Your task to perform on an android device: turn on notifications settings in the gmail app Image 0: 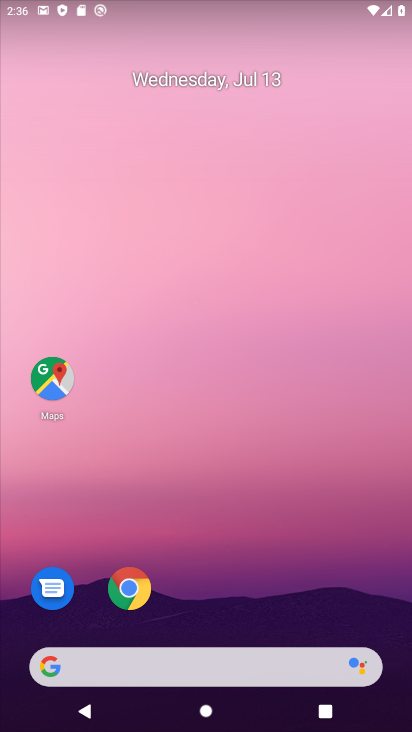
Step 0: drag from (352, 708) to (187, 157)
Your task to perform on an android device: turn on notifications settings in the gmail app Image 1: 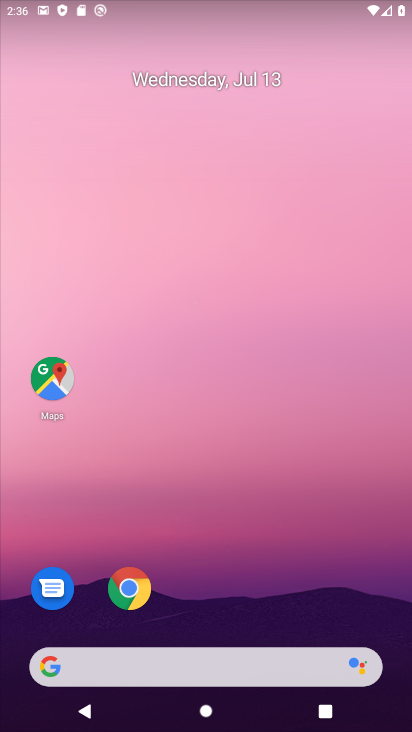
Step 1: drag from (241, 684) to (230, 60)
Your task to perform on an android device: turn on notifications settings in the gmail app Image 2: 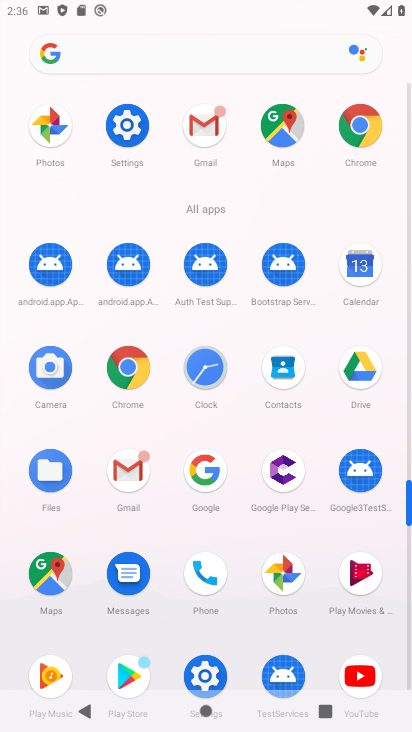
Step 2: drag from (266, 509) to (214, 134)
Your task to perform on an android device: turn on notifications settings in the gmail app Image 3: 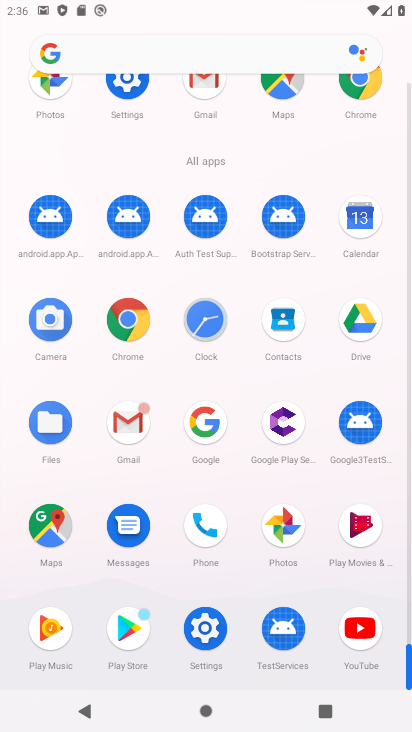
Step 3: click (199, 626)
Your task to perform on an android device: turn on notifications settings in the gmail app Image 4: 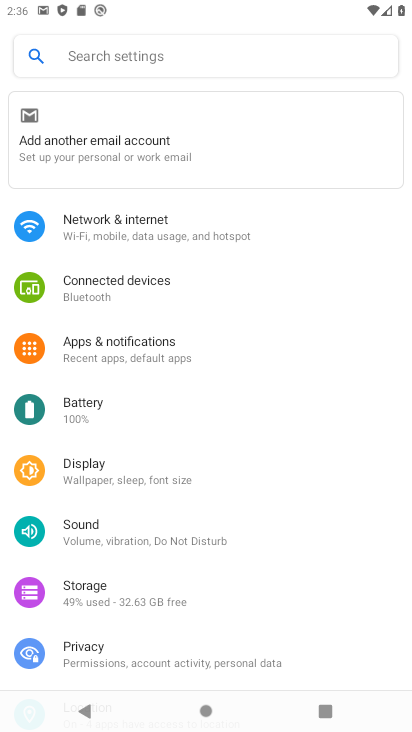
Step 4: press back button
Your task to perform on an android device: turn on notifications settings in the gmail app Image 5: 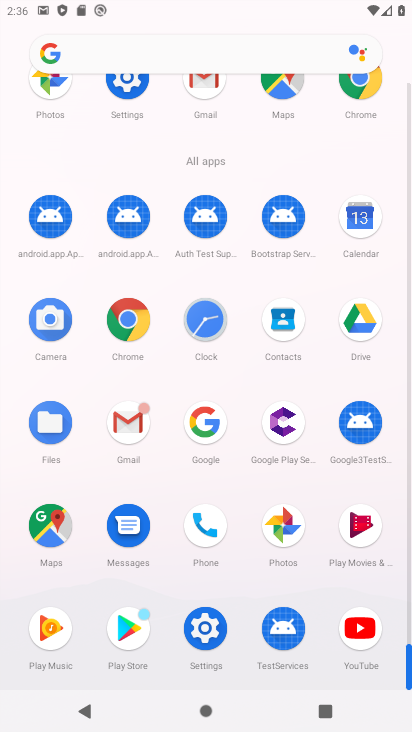
Step 5: click (126, 403)
Your task to perform on an android device: turn on notifications settings in the gmail app Image 6: 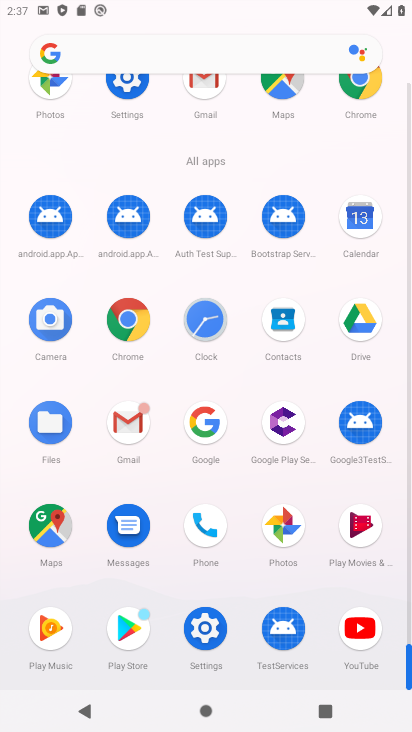
Step 6: click (129, 411)
Your task to perform on an android device: turn on notifications settings in the gmail app Image 7: 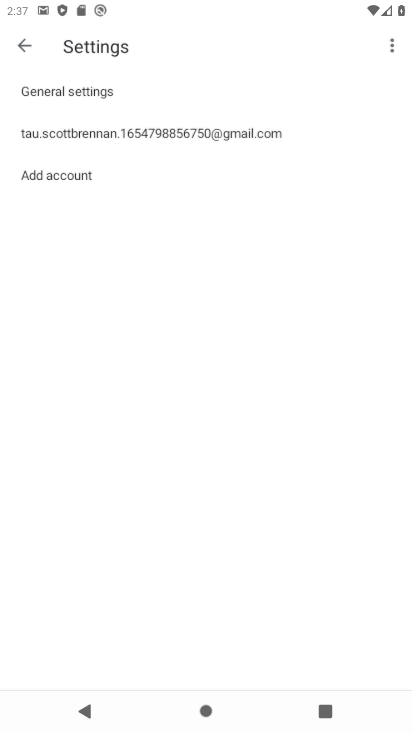
Step 7: click (130, 412)
Your task to perform on an android device: turn on notifications settings in the gmail app Image 8: 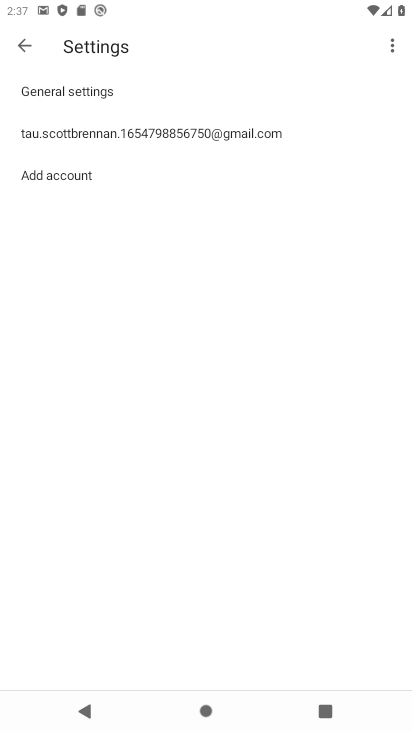
Step 8: click (131, 412)
Your task to perform on an android device: turn on notifications settings in the gmail app Image 9: 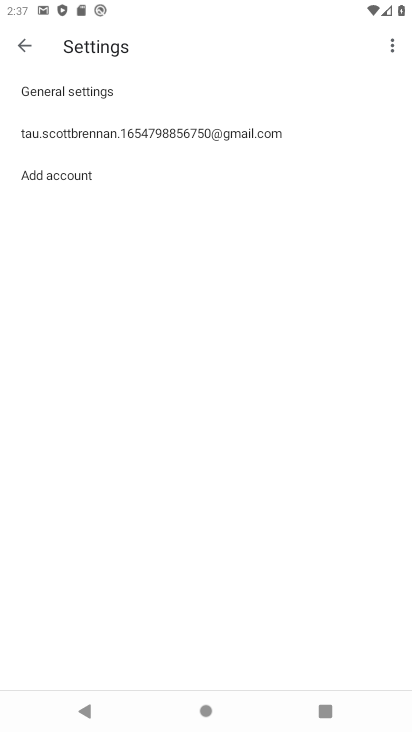
Step 9: click (130, 117)
Your task to perform on an android device: turn on notifications settings in the gmail app Image 10: 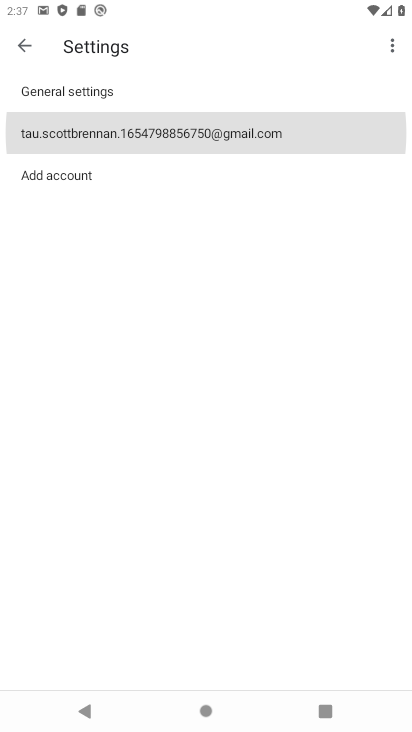
Step 10: click (127, 121)
Your task to perform on an android device: turn on notifications settings in the gmail app Image 11: 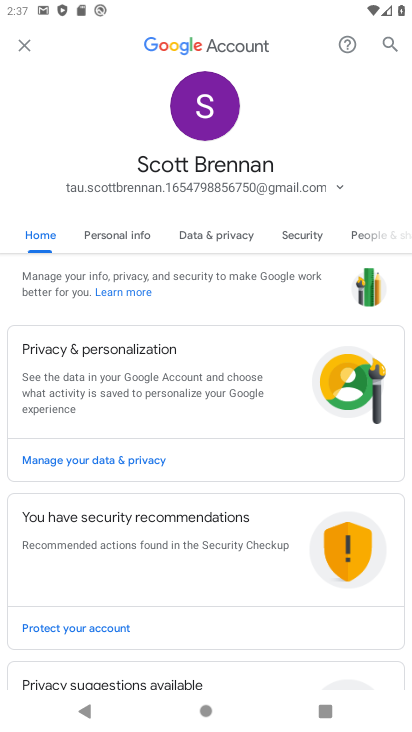
Step 11: click (18, 31)
Your task to perform on an android device: turn on notifications settings in the gmail app Image 12: 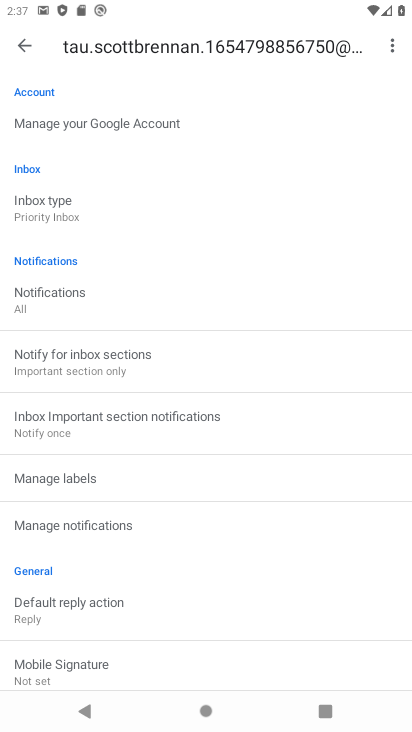
Step 12: click (39, 292)
Your task to perform on an android device: turn on notifications settings in the gmail app Image 13: 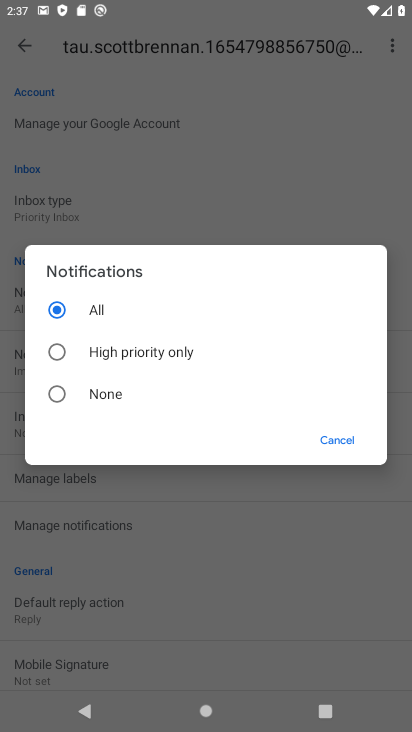
Step 13: click (338, 435)
Your task to perform on an android device: turn on notifications settings in the gmail app Image 14: 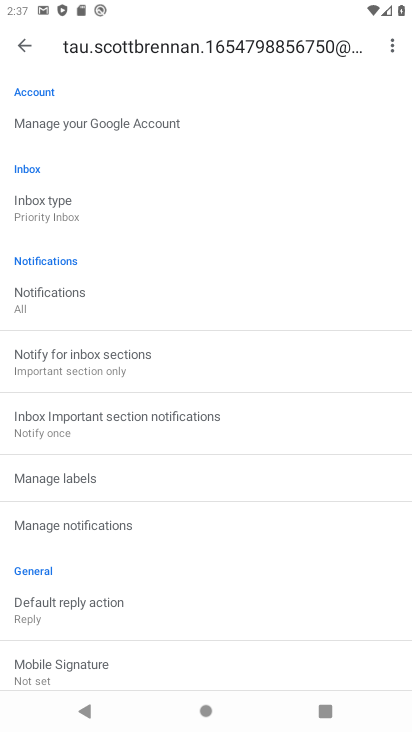
Step 14: task complete